Your task to perform on an android device: Do I have any events this weekend? Image 0: 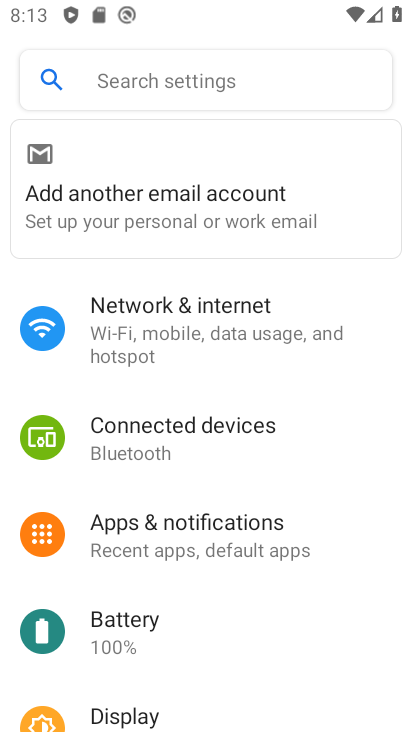
Step 0: press home button
Your task to perform on an android device: Do I have any events this weekend? Image 1: 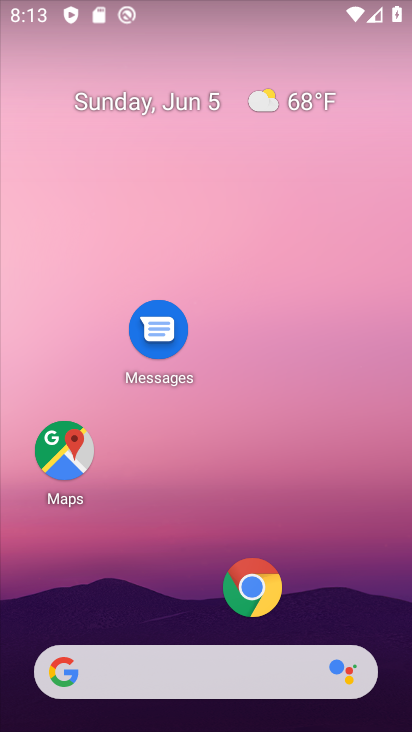
Step 1: click (194, 149)
Your task to perform on an android device: Do I have any events this weekend? Image 2: 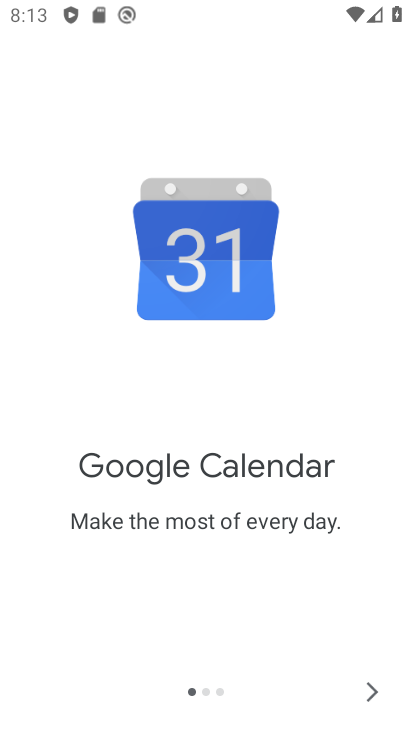
Step 2: press home button
Your task to perform on an android device: Do I have any events this weekend? Image 3: 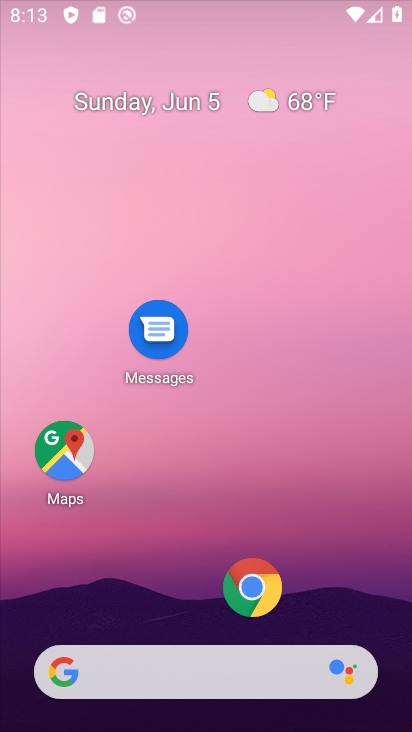
Step 3: drag from (137, 636) to (166, 227)
Your task to perform on an android device: Do I have any events this weekend? Image 4: 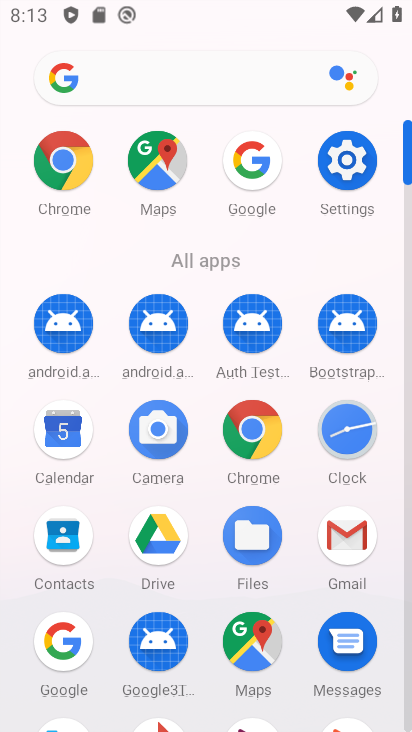
Step 4: click (56, 447)
Your task to perform on an android device: Do I have any events this weekend? Image 5: 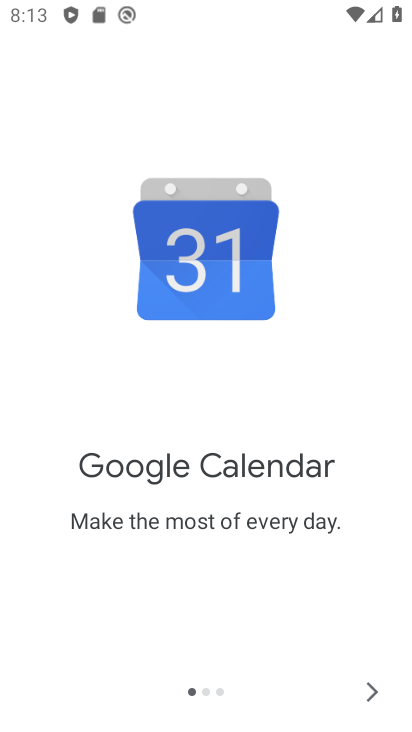
Step 5: click (373, 691)
Your task to perform on an android device: Do I have any events this weekend? Image 6: 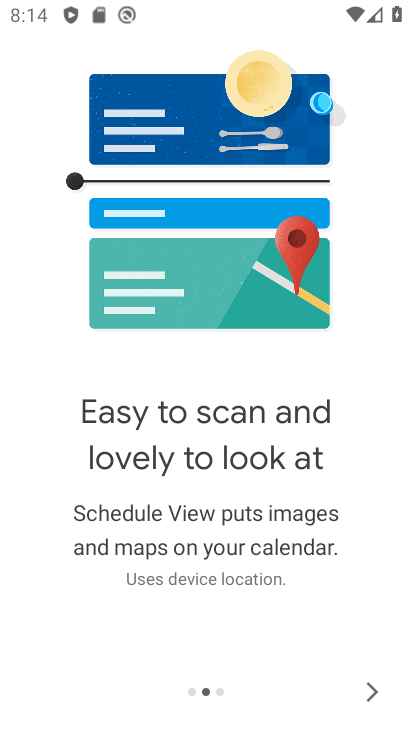
Step 6: click (368, 694)
Your task to perform on an android device: Do I have any events this weekend? Image 7: 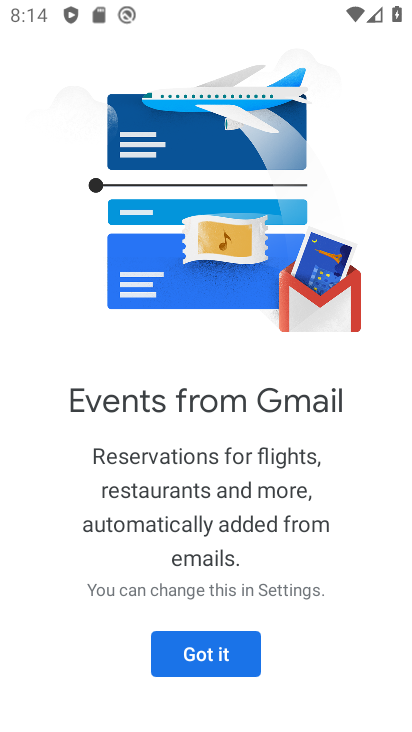
Step 7: click (236, 656)
Your task to perform on an android device: Do I have any events this weekend? Image 8: 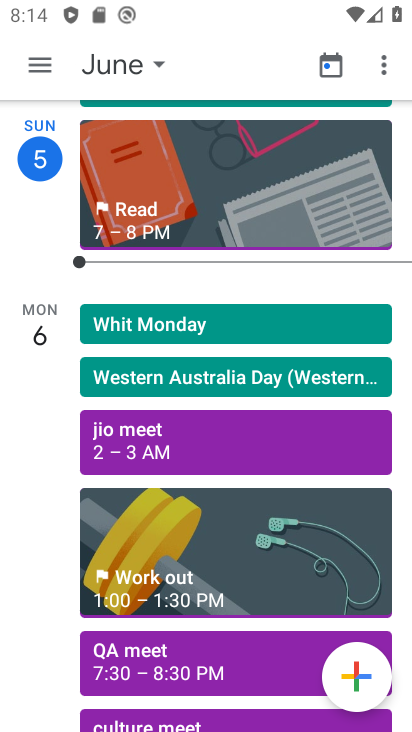
Step 8: click (160, 73)
Your task to perform on an android device: Do I have any events this weekend? Image 9: 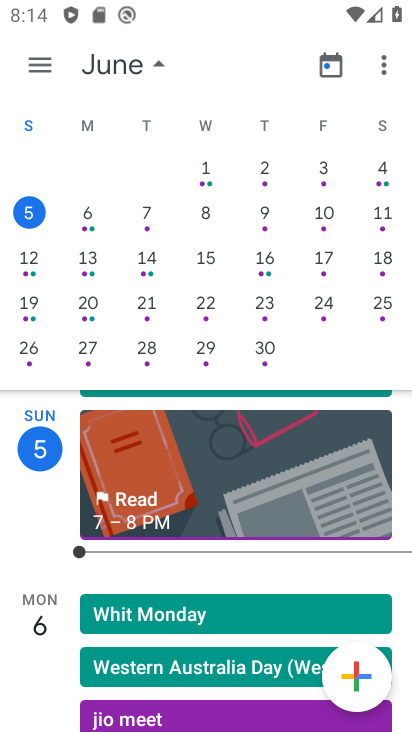
Step 9: click (324, 220)
Your task to perform on an android device: Do I have any events this weekend? Image 10: 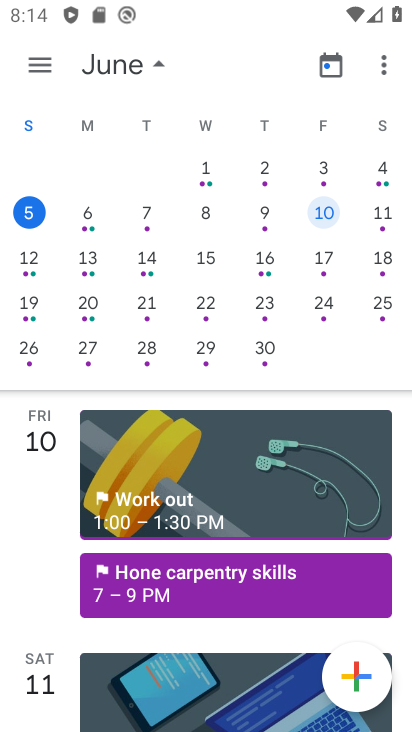
Step 10: click (380, 217)
Your task to perform on an android device: Do I have any events this weekend? Image 11: 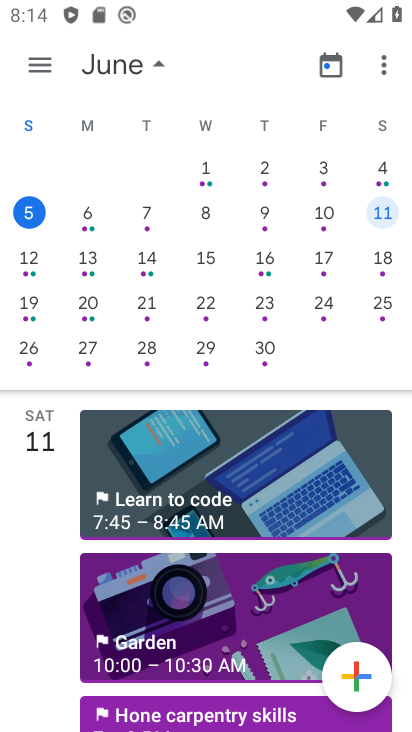
Step 11: task complete